Your task to perform on an android device: Open calendar and show me the third week of next month Image 0: 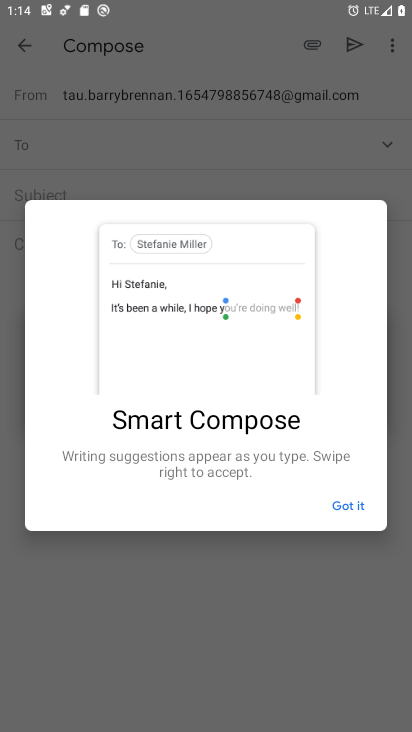
Step 0: press home button
Your task to perform on an android device: Open calendar and show me the third week of next month Image 1: 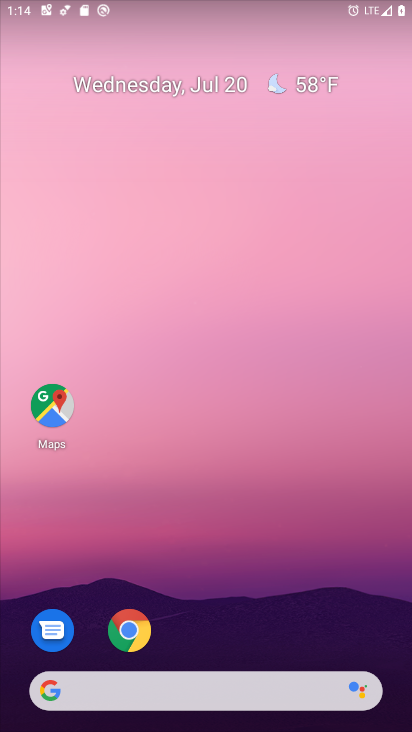
Step 1: drag from (124, 678) to (128, 138)
Your task to perform on an android device: Open calendar and show me the third week of next month Image 2: 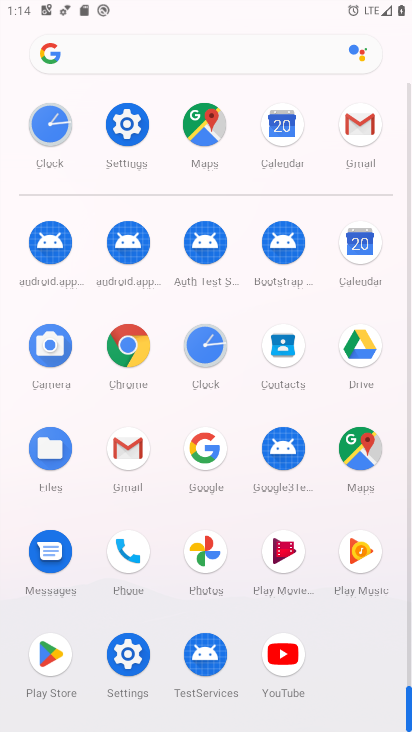
Step 2: click (351, 274)
Your task to perform on an android device: Open calendar and show me the third week of next month Image 3: 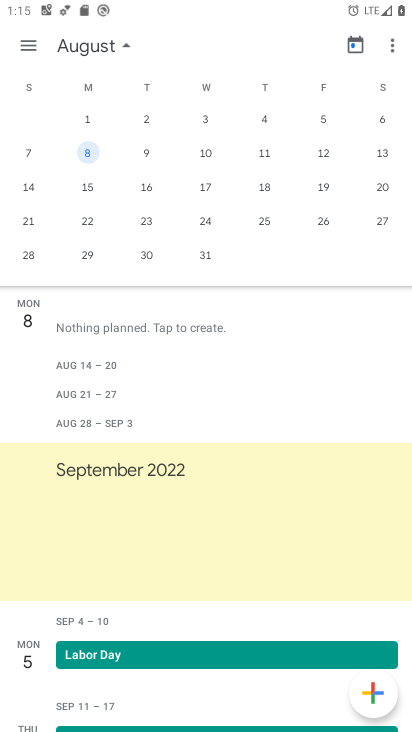
Step 3: click (97, 232)
Your task to perform on an android device: Open calendar and show me the third week of next month Image 4: 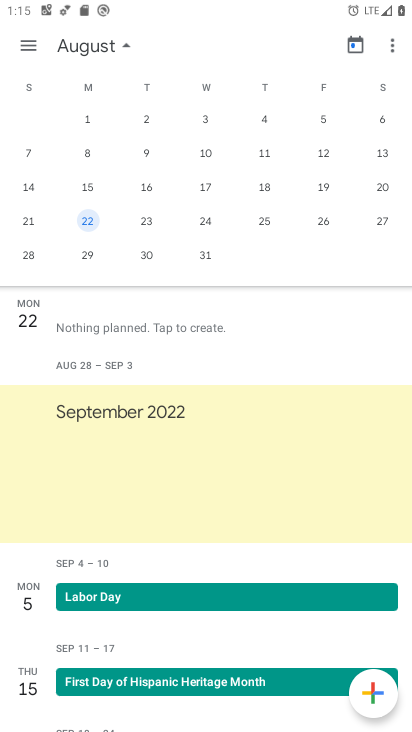
Step 4: task complete